Your task to perform on an android device: delete location history Image 0: 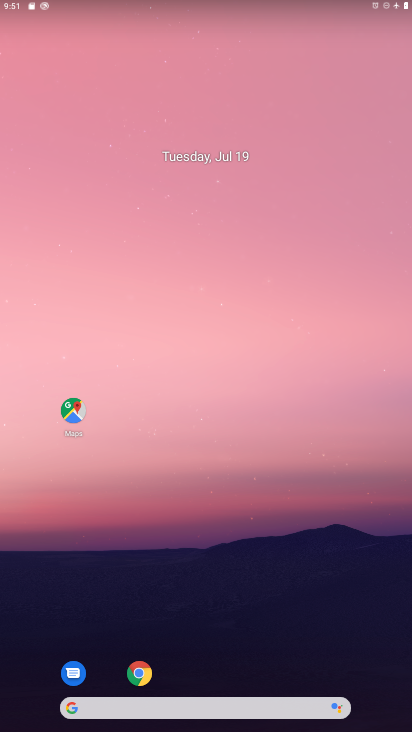
Step 0: click (72, 408)
Your task to perform on an android device: delete location history Image 1: 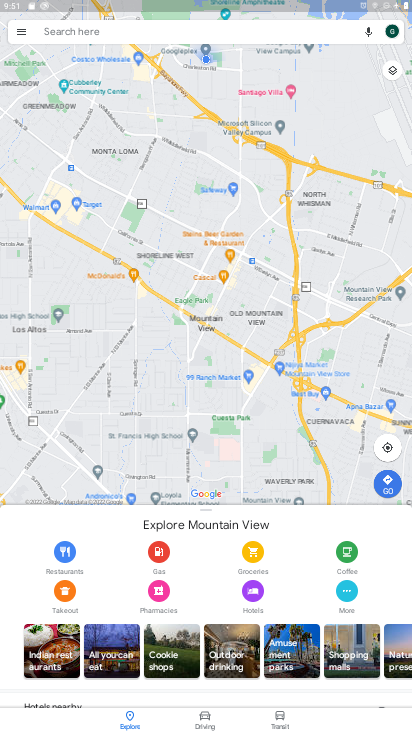
Step 1: click (13, 29)
Your task to perform on an android device: delete location history Image 2: 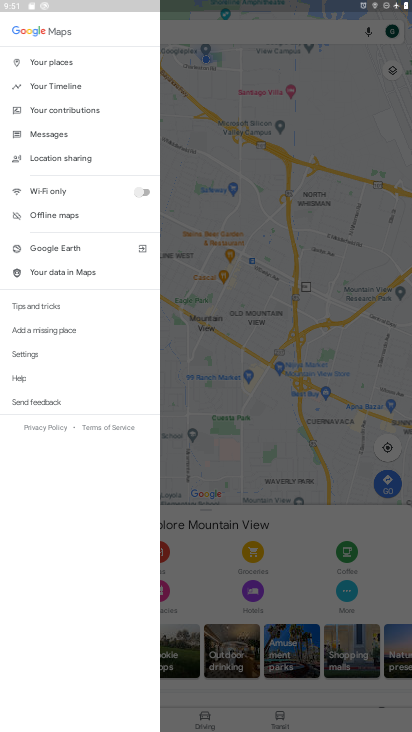
Step 2: click (29, 355)
Your task to perform on an android device: delete location history Image 3: 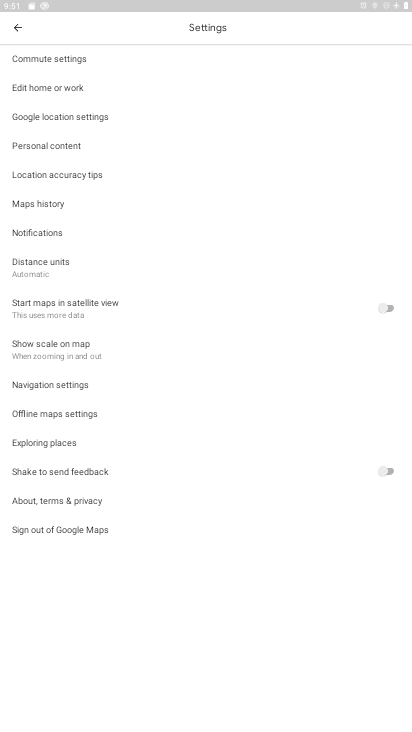
Step 3: click (30, 141)
Your task to perform on an android device: delete location history Image 4: 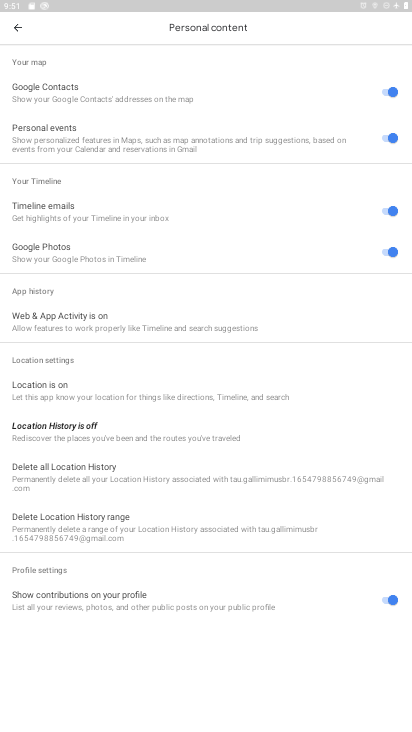
Step 4: click (50, 476)
Your task to perform on an android device: delete location history Image 5: 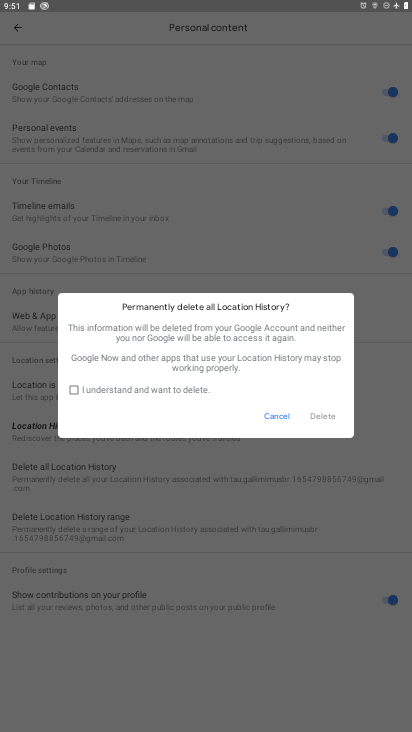
Step 5: click (76, 389)
Your task to perform on an android device: delete location history Image 6: 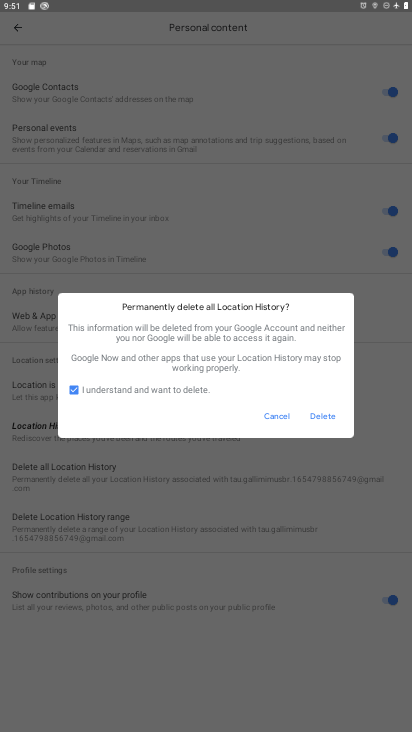
Step 6: click (324, 416)
Your task to perform on an android device: delete location history Image 7: 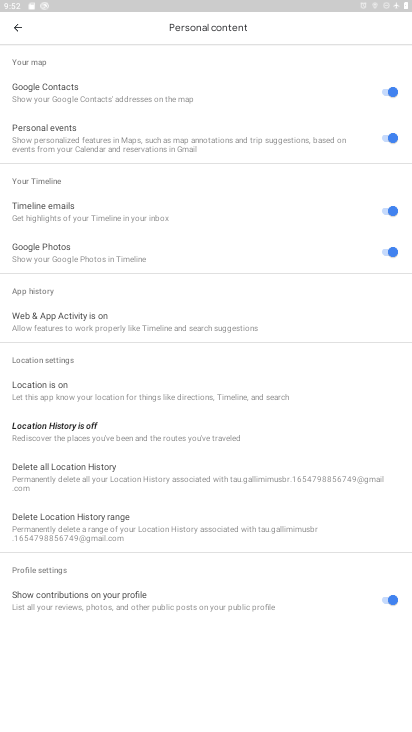
Step 7: task complete